Your task to perform on an android device: change the clock style Image 0: 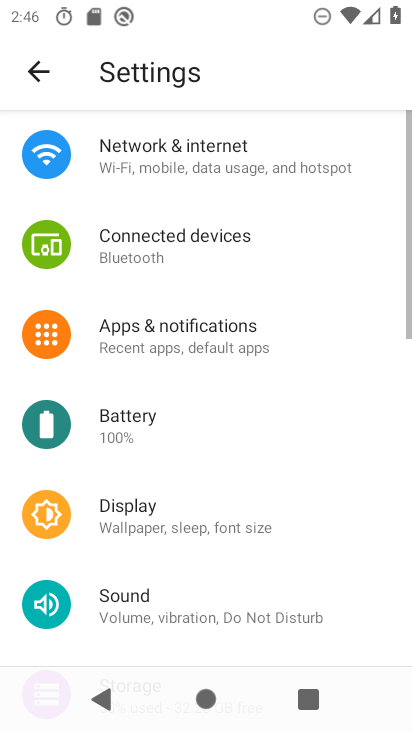
Step 0: press home button
Your task to perform on an android device: change the clock style Image 1: 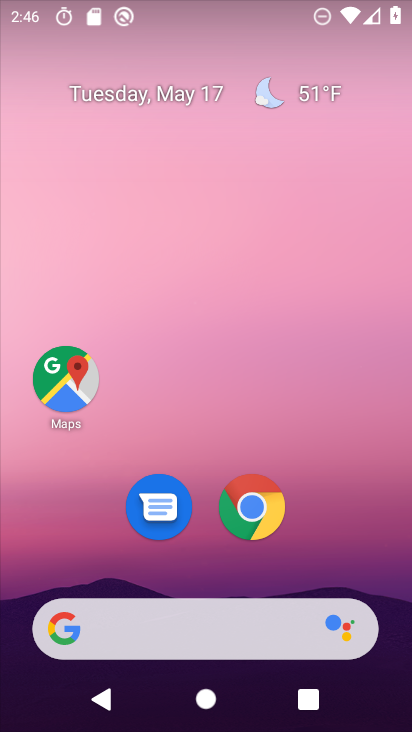
Step 1: drag from (217, 567) to (247, 101)
Your task to perform on an android device: change the clock style Image 2: 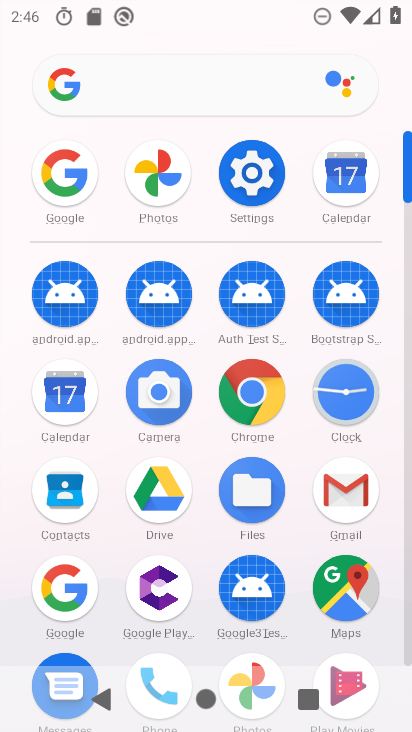
Step 2: click (353, 387)
Your task to perform on an android device: change the clock style Image 3: 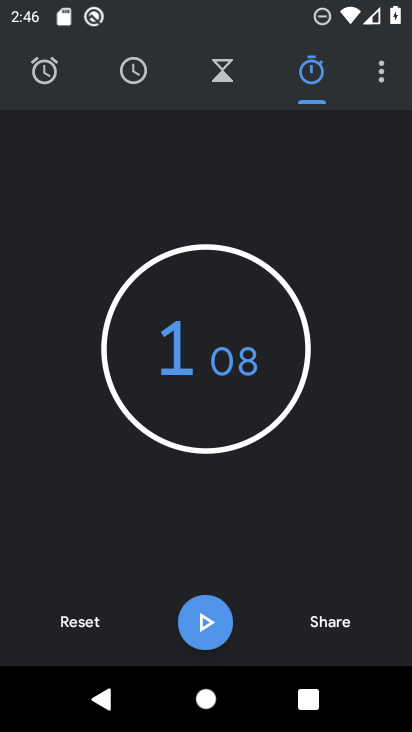
Step 3: click (376, 66)
Your task to perform on an android device: change the clock style Image 4: 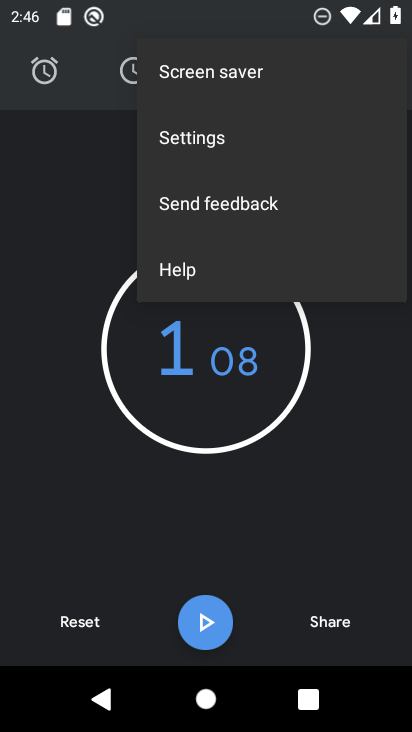
Step 4: click (251, 157)
Your task to perform on an android device: change the clock style Image 5: 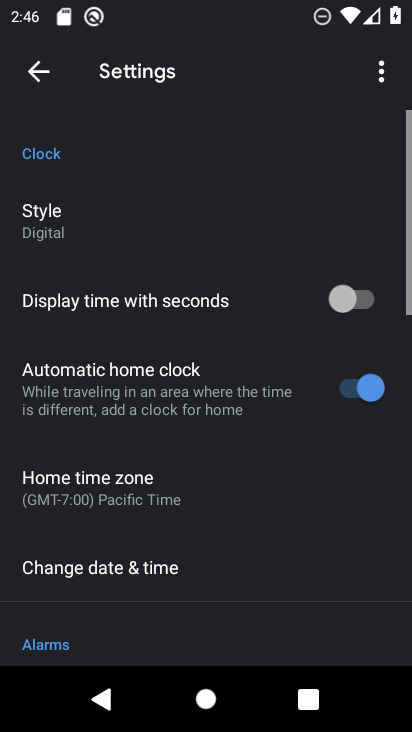
Step 5: click (122, 231)
Your task to perform on an android device: change the clock style Image 6: 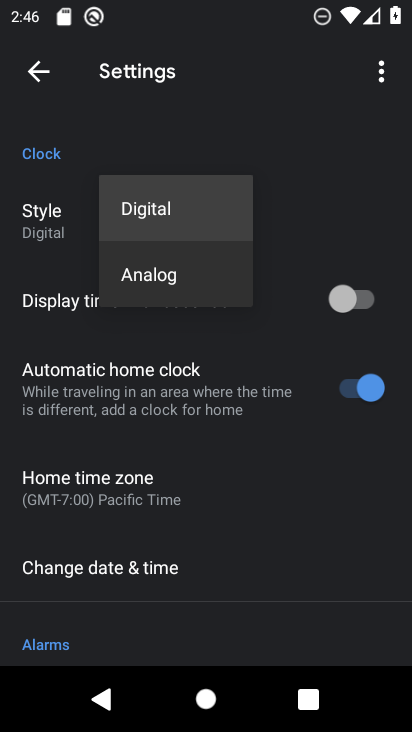
Step 6: click (157, 275)
Your task to perform on an android device: change the clock style Image 7: 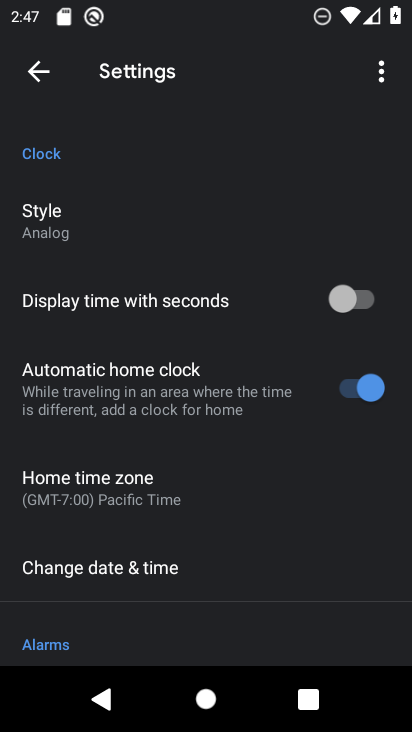
Step 7: task complete